Your task to perform on an android device: turn on the 12-hour format for clock Image 0: 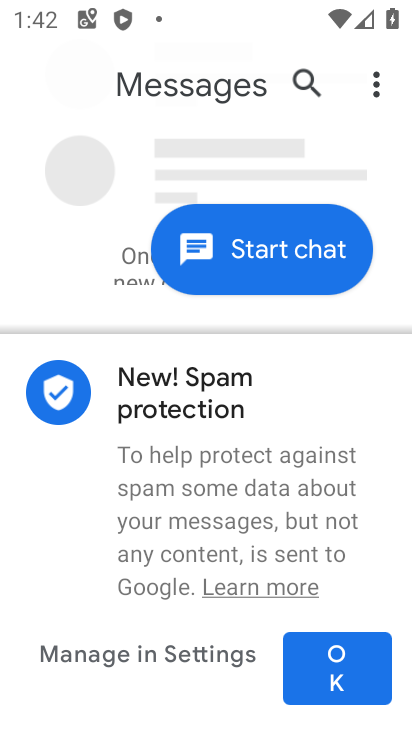
Step 0: press home button
Your task to perform on an android device: turn on the 12-hour format for clock Image 1: 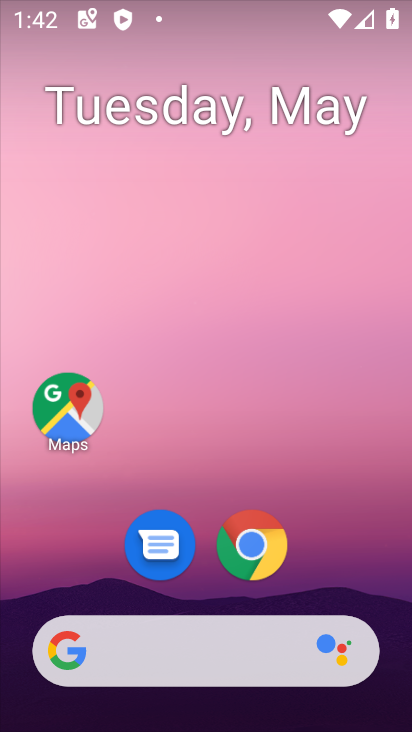
Step 1: drag from (382, 603) to (309, 66)
Your task to perform on an android device: turn on the 12-hour format for clock Image 2: 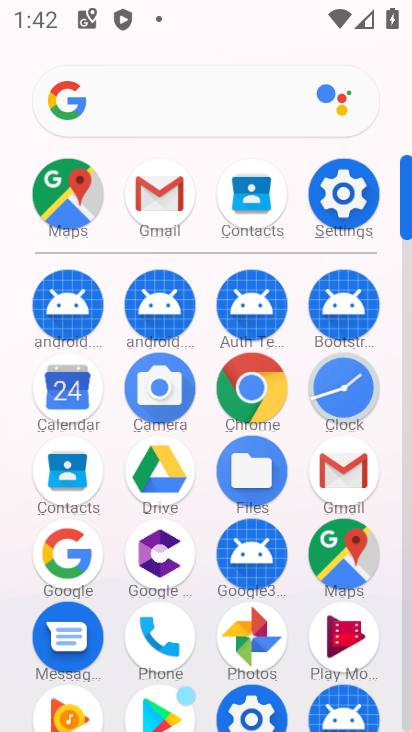
Step 2: click (339, 381)
Your task to perform on an android device: turn on the 12-hour format for clock Image 3: 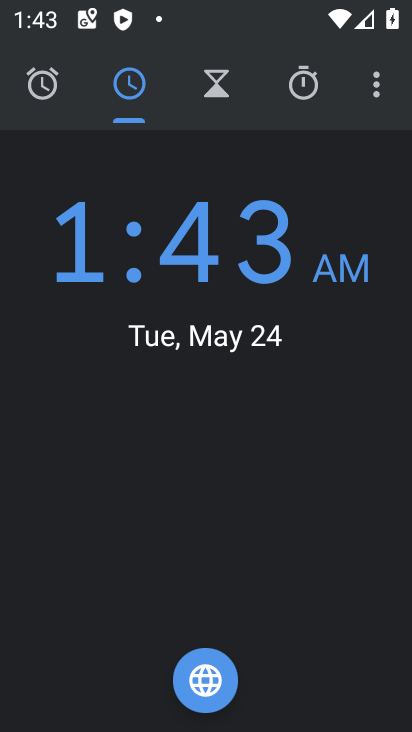
Step 3: click (376, 96)
Your task to perform on an android device: turn on the 12-hour format for clock Image 4: 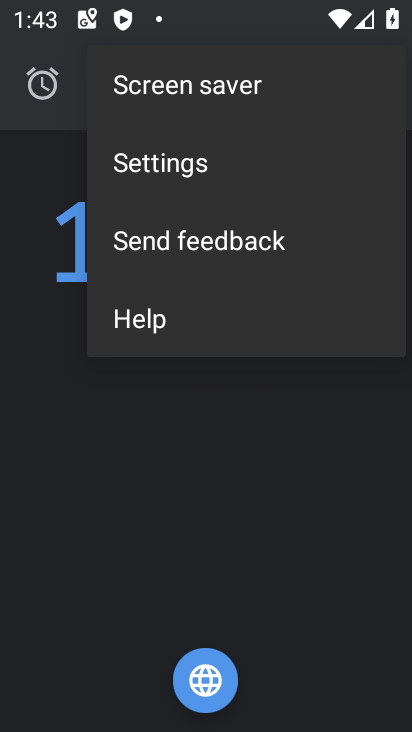
Step 4: click (159, 173)
Your task to perform on an android device: turn on the 12-hour format for clock Image 5: 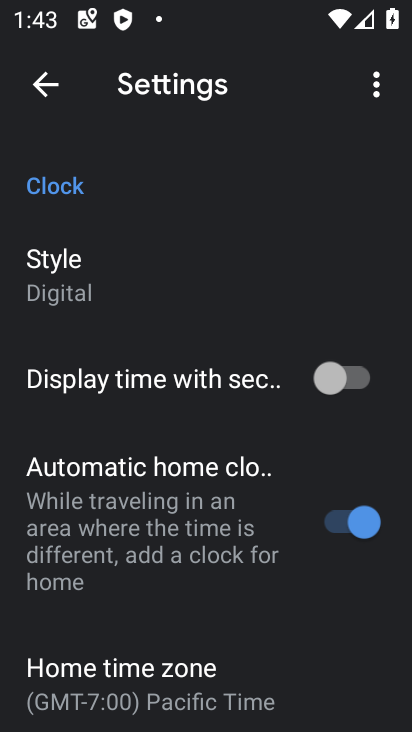
Step 5: drag from (215, 620) to (206, 218)
Your task to perform on an android device: turn on the 12-hour format for clock Image 6: 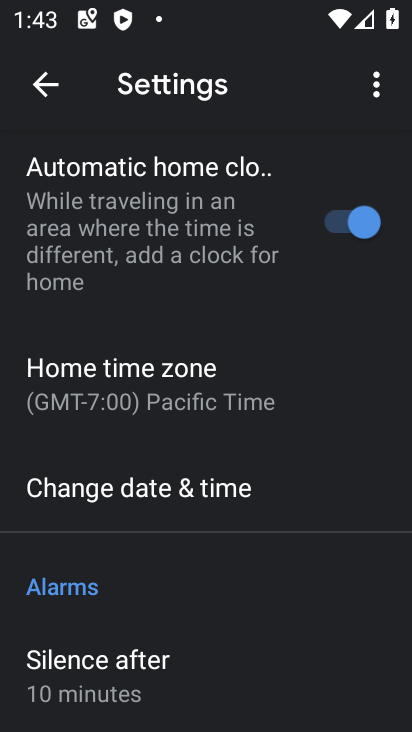
Step 6: click (146, 470)
Your task to perform on an android device: turn on the 12-hour format for clock Image 7: 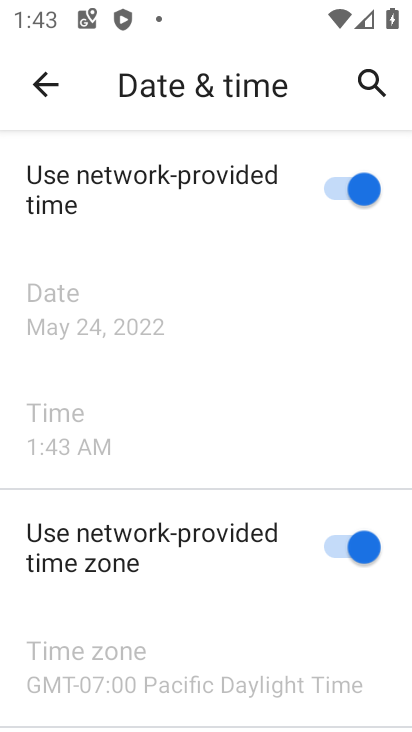
Step 7: task complete